Your task to perform on an android device: When is my next meeting? Image 0: 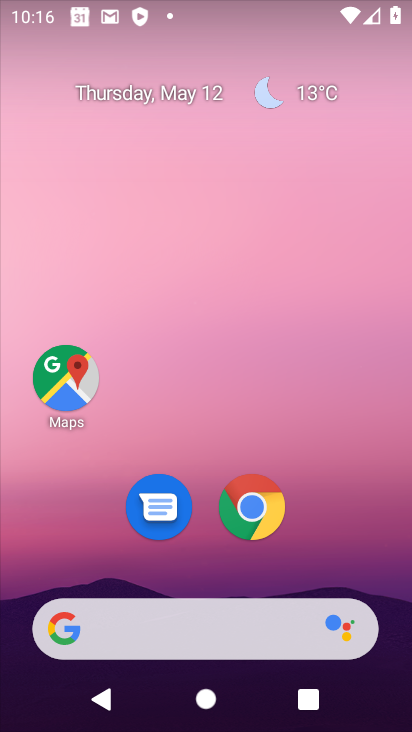
Step 0: drag from (402, 601) to (39, 110)
Your task to perform on an android device: When is my next meeting? Image 1: 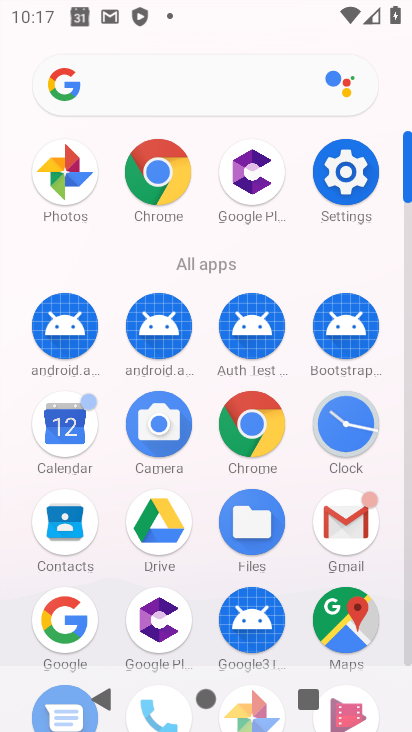
Step 1: drag from (174, 547) to (126, 286)
Your task to perform on an android device: When is my next meeting? Image 2: 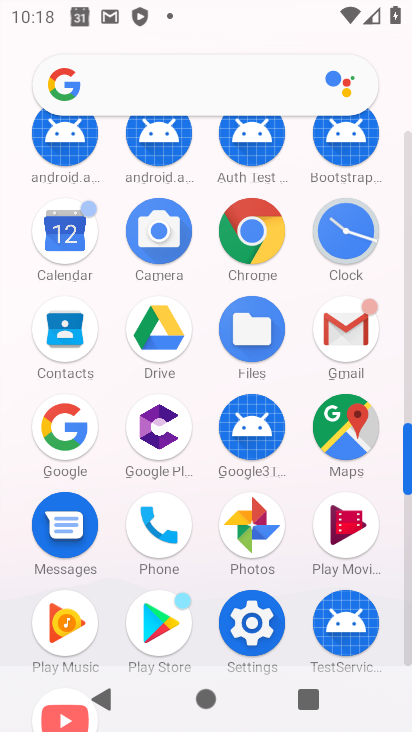
Step 2: click (54, 231)
Your task to perform on an android device: When is my next meeting? Image 3: 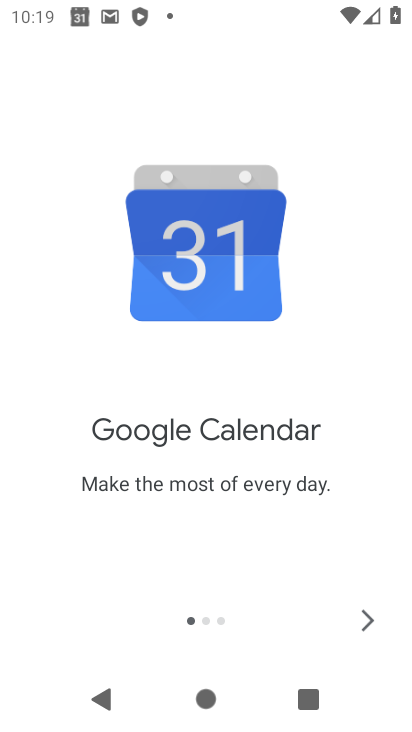
Step 3: click (377, 613)
Your task to perform on an android device: When is my next meeting? Image 4: 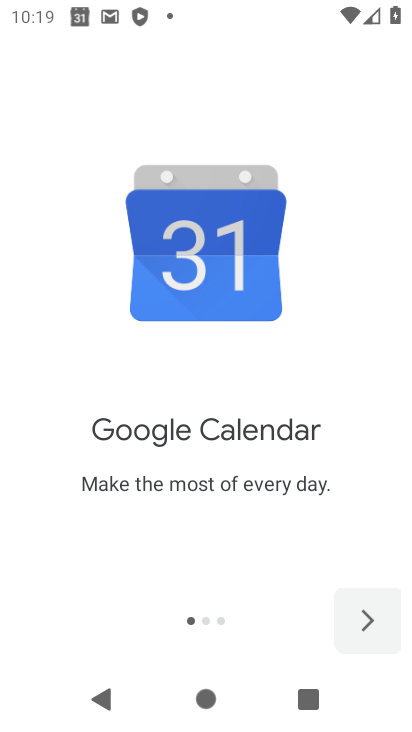
Step 4: click (377, 613)
Your task to perform on an android device: When is my next meeting? Image 5: 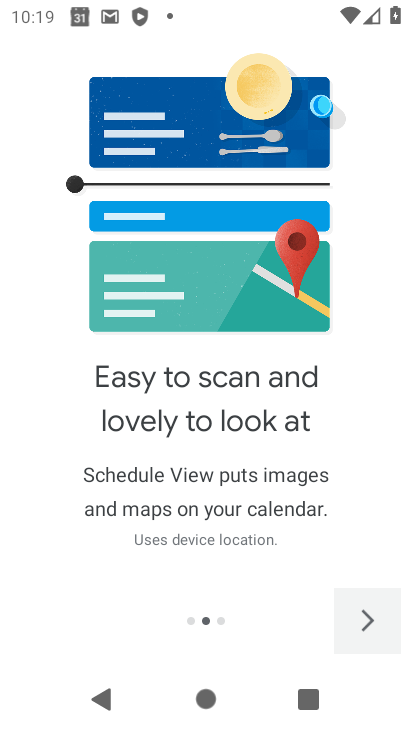
Step 5: click (372, 602)
Your task to perform on an android device: When is my next meeting? Image 6: 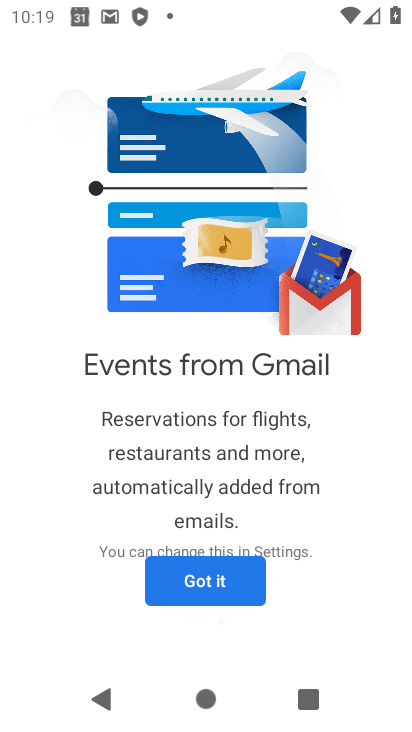
Step 6: click (372, 602)
Your task to perform on an android device: When is my next meeting? Image 7: 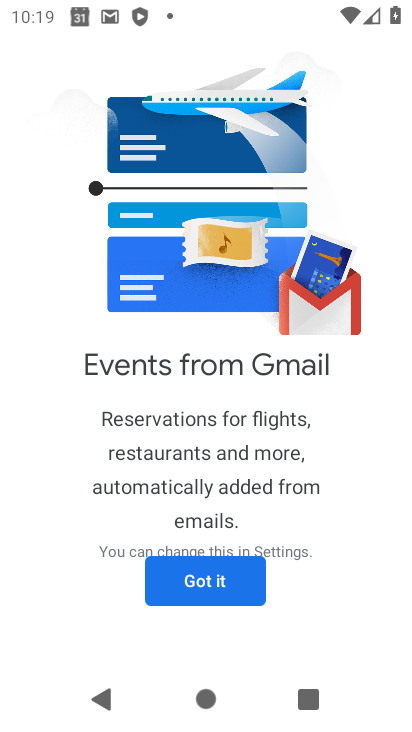
Step 7: click (184, 573)
Your task to perform on an android device: When is my next meeting? Image 8: 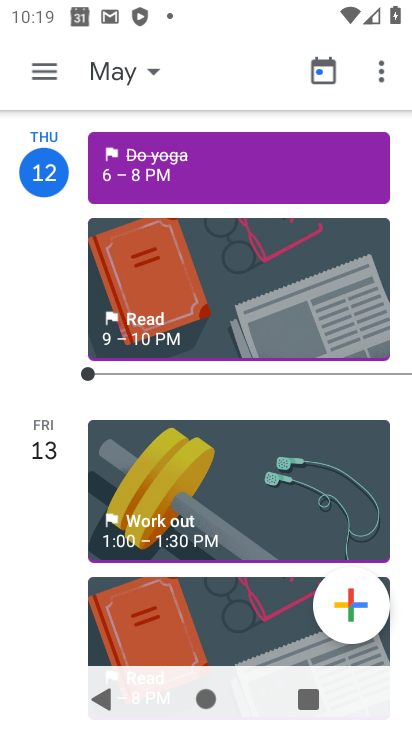
Step 8: click (138, 70)
Your task to perform on an android device: When is my next meeting? Image 9: 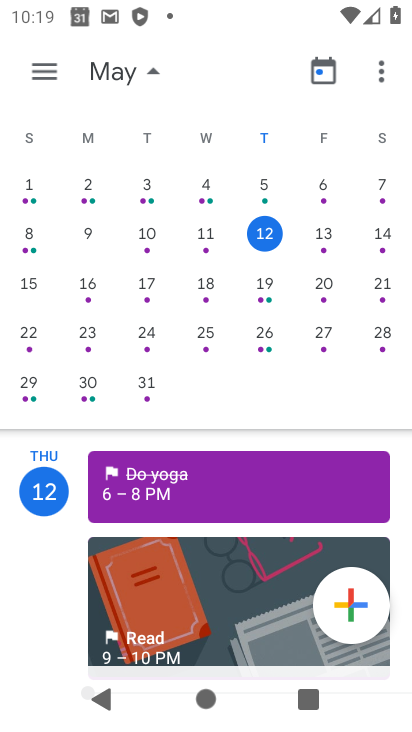
Step 9: click (326, 250)
Your task to perform on an android device: When is my next meeting? Image 10: 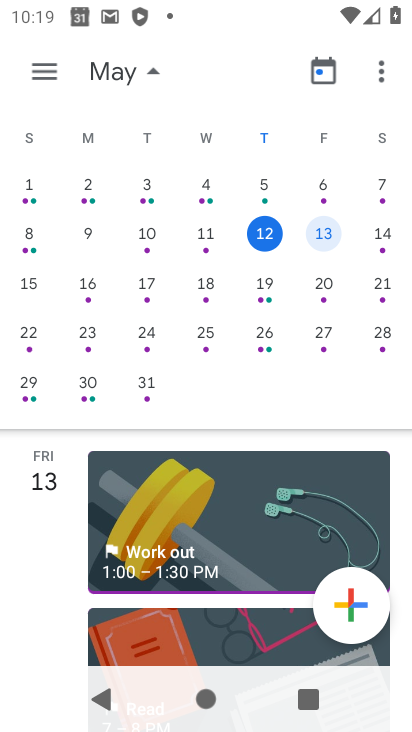
Step 10: click (121, 65)
Your task to perform on an android device: When is my next meeting? Image 11: 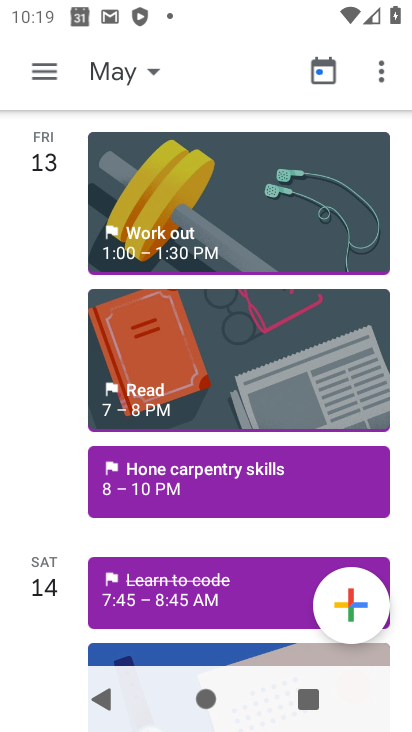
Step 11: task complete